Your task to perform on an android device: open a bookmark in the chrome app Image 0: 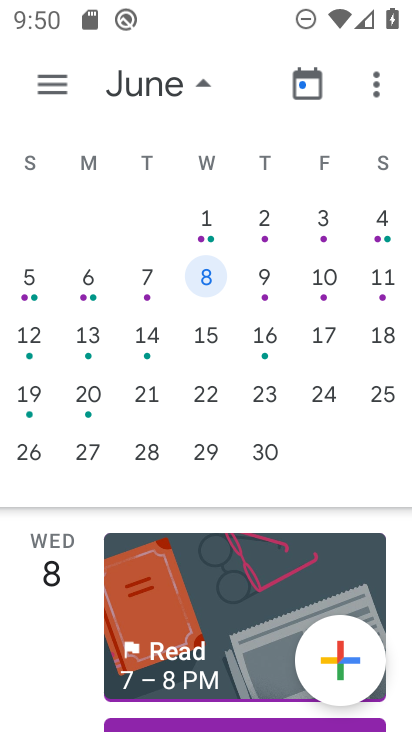
Step 0: press home button
Your task to perform on an android device: open a bookmark in the chrome app Image 1: 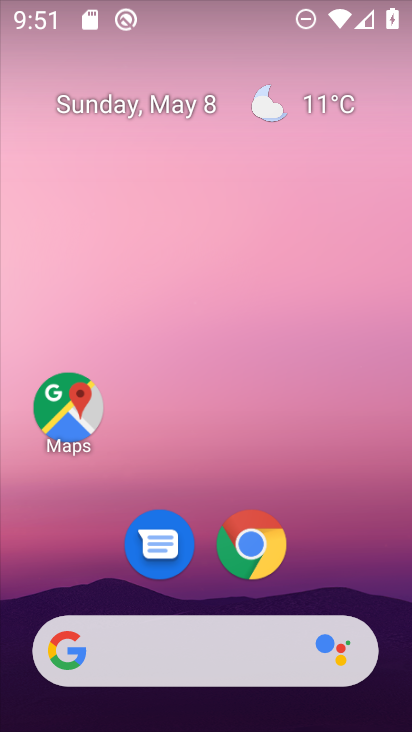
Step 1: click (252, 537)
Your task to perform on an android device: open a bookmark in the chrome app Image 2: 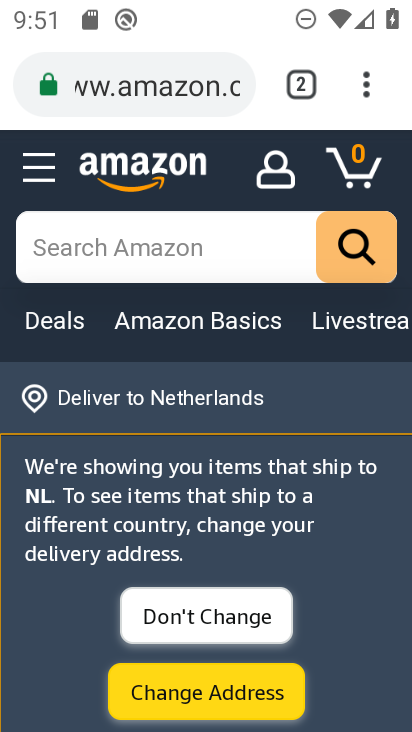
Step 2: task complete